Your task to perform on an android device: empty trash in the gmail app Image 0: 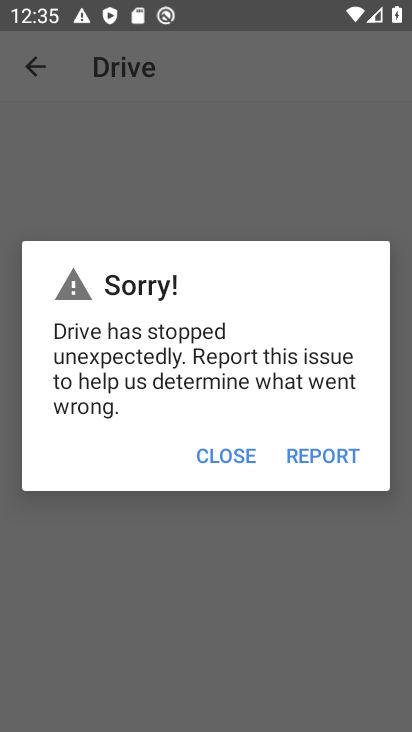
Step 0: press home button
Your task to perform on an android device: empty trash in the gmail app Image 1: 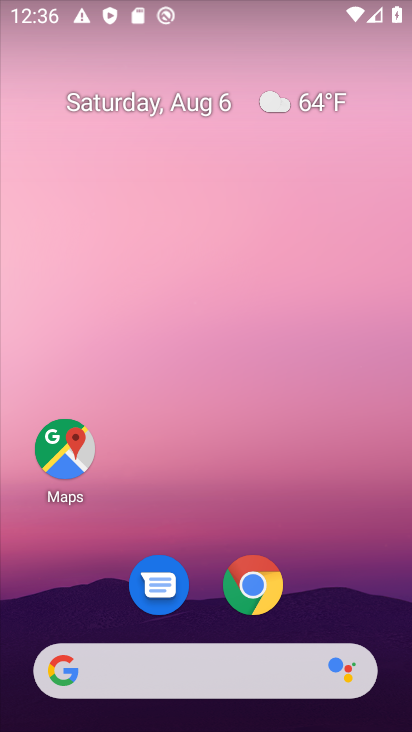
Step 1: drag from (247, 499) to (267, 2)
Your task to perform on an android device: empty trash in the gmail app Image 2: 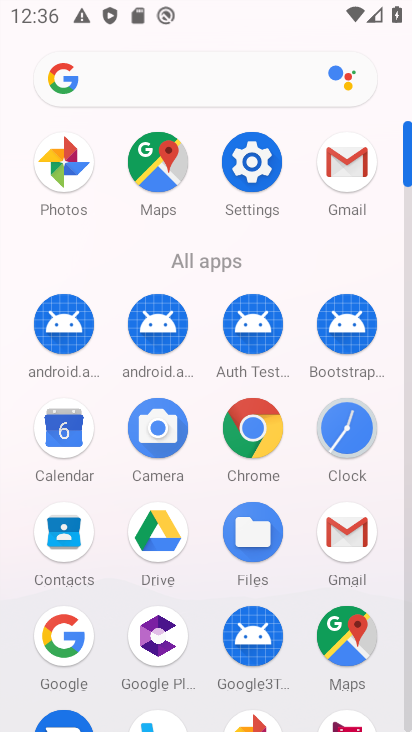
Step 2: click (343, 164)
Your task to perform on an android device: empty trash in the gmail app Image 3: 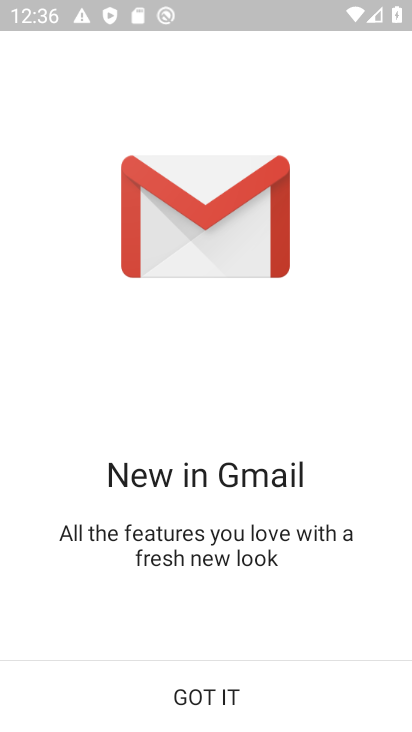
Step 3: click (209, 689)
Your task to perform on an android device: empty trash in the gmail app Image 4: 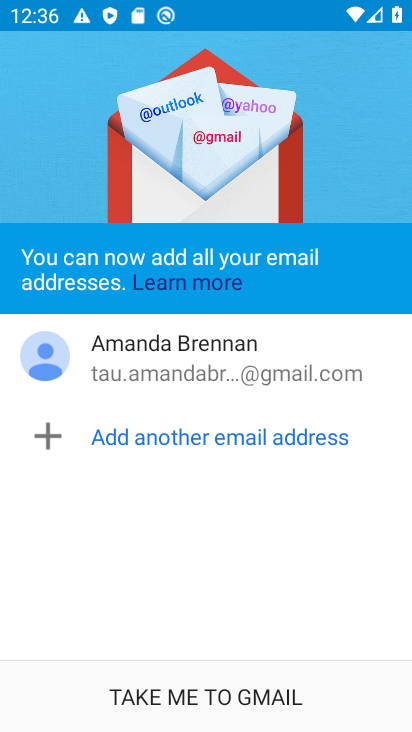
Step 4: click (207, 689)
Your task to perform on an android device: empty trash in the gmail app Image 5: 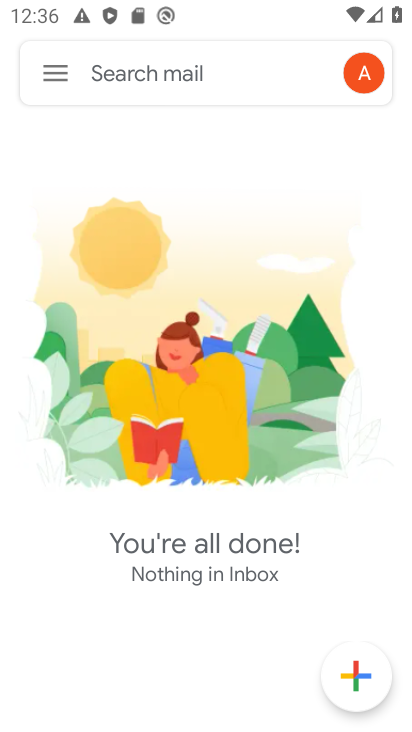
Step 5: click (52, 69)
Your task to perform on an android device: empty trash in the gmail app Image 6: 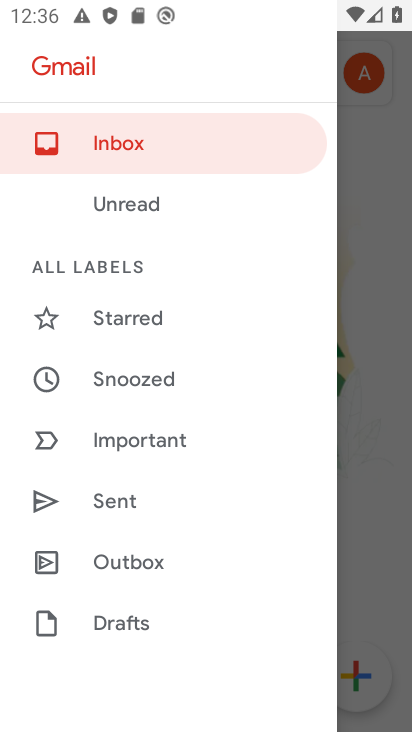
Step 6: drag from (194, 601) to (204, 1)
Your task to perform on an android device: empty trash in the gmail app Image 7: 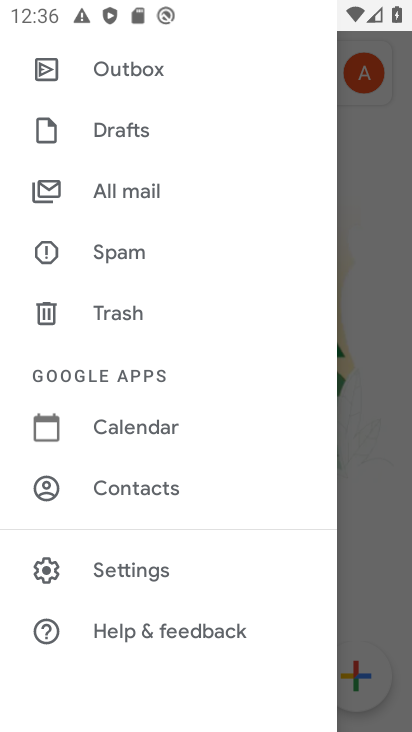
Step 7: click (122, 307)
Your task to perform on an android device: empty trash in the gmail app Image 8: 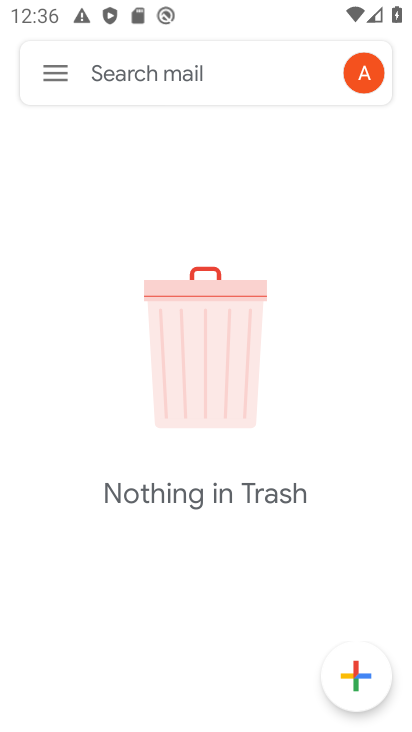
Step 8: task complete